Your task to perform on an android device: open app "Mercado Libre" Image 0: 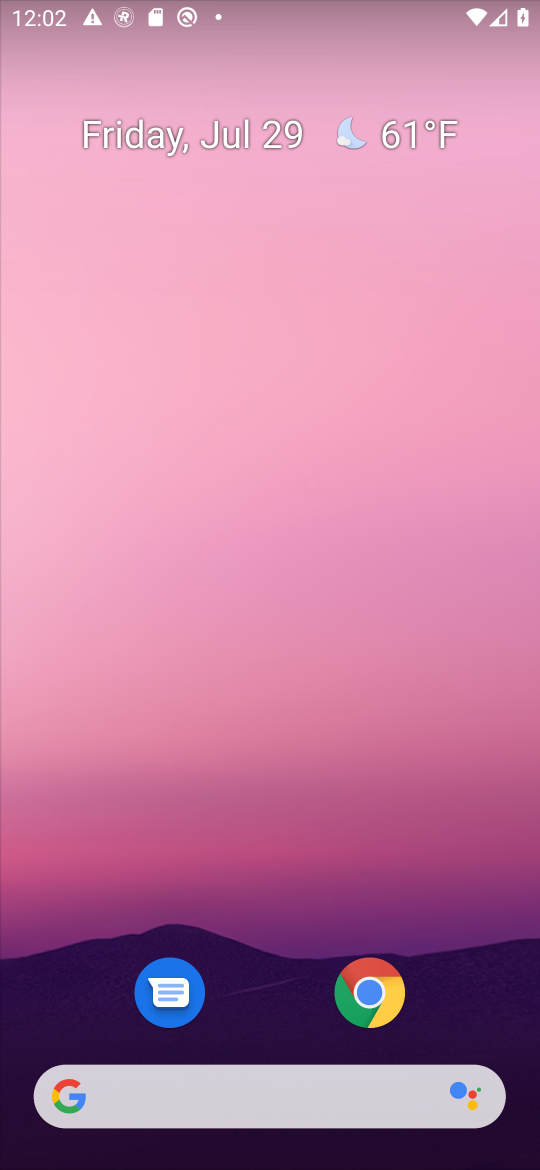
Step 0: drag from (222, 1095) to (213, 255)
Your task to perform on an android device: open app "Mercado Libre" Image 1: 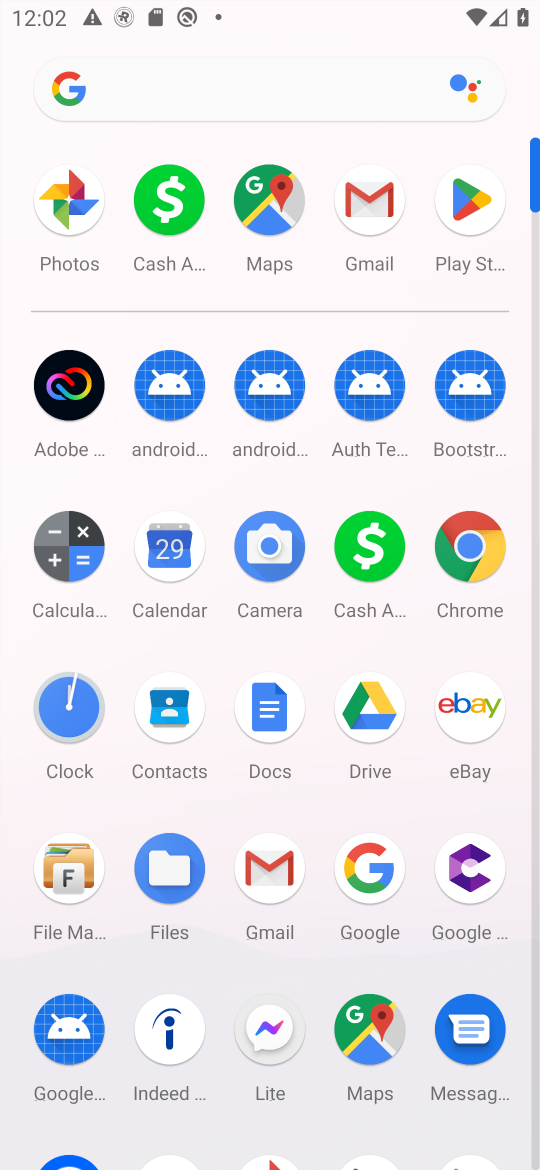
Step 1: click (481, 203)
Your task to perform on an android device: open app "Mercado Libre" Image 2: 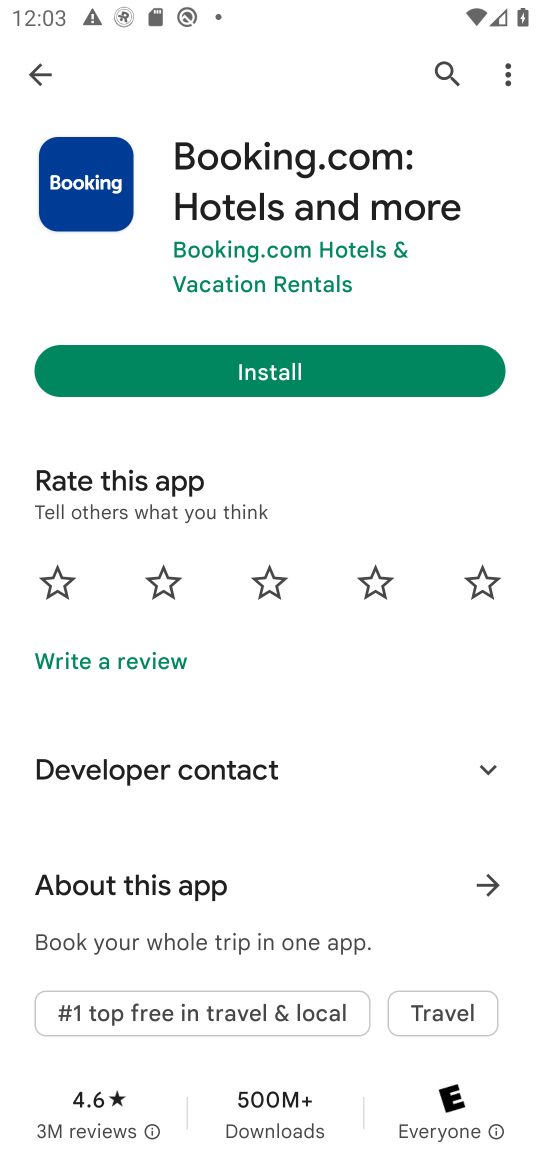
Step 2: click (456, 73)
Your task to perform on an android device: open app "Mercado Libre" Image 3: 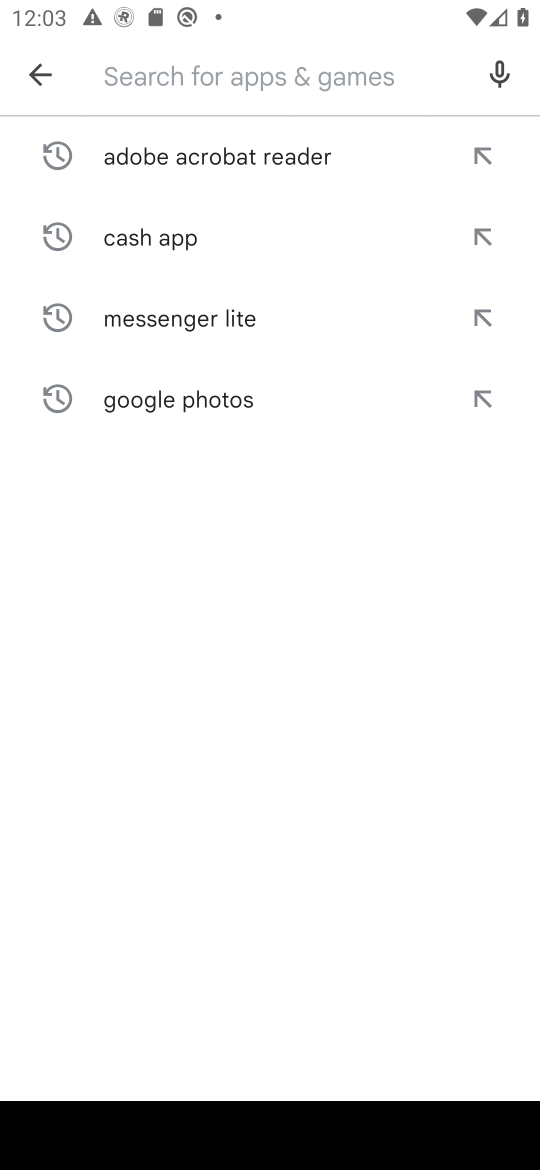
Step 3: type "Mercado Libre"
Your task to perform on an android device: open app "Mercado Libre" Image 4: 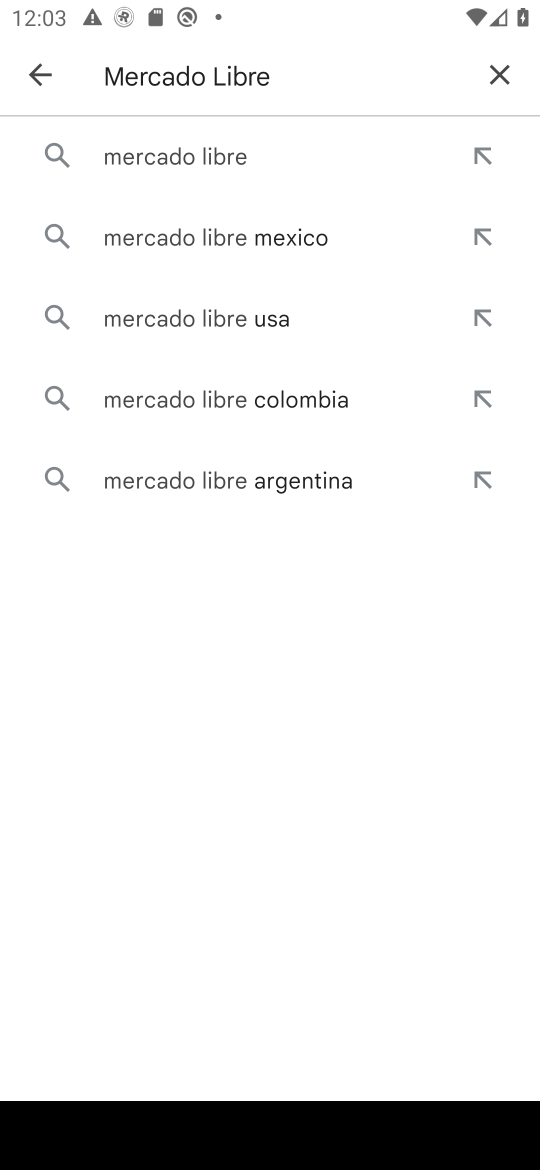
Step 4: click (216, 150)
Your task to perform on an android device: open app "Mercado Libre" Image 5: 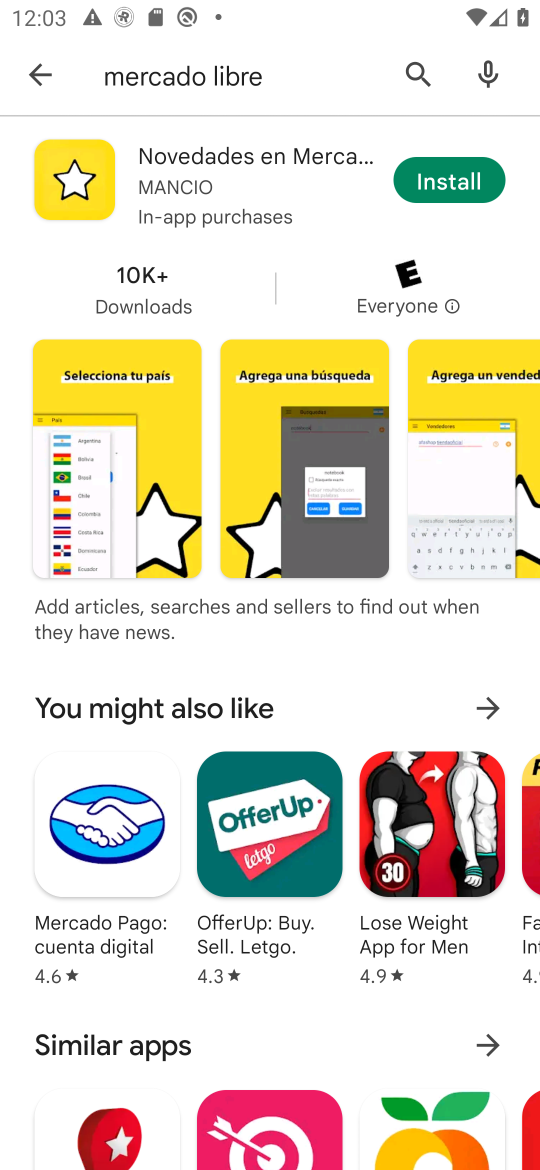
Step 5: task complete